Your task to perform on an android device: Open notification settings Image 0: 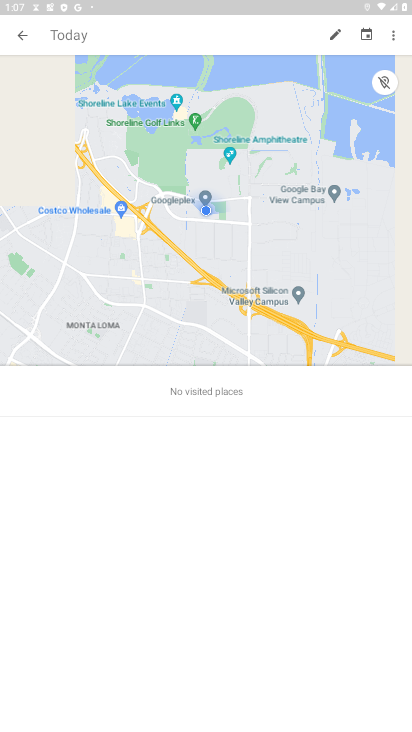
Step 0: press home button
Your task to perform on an android device: Open notification settings Image 1: 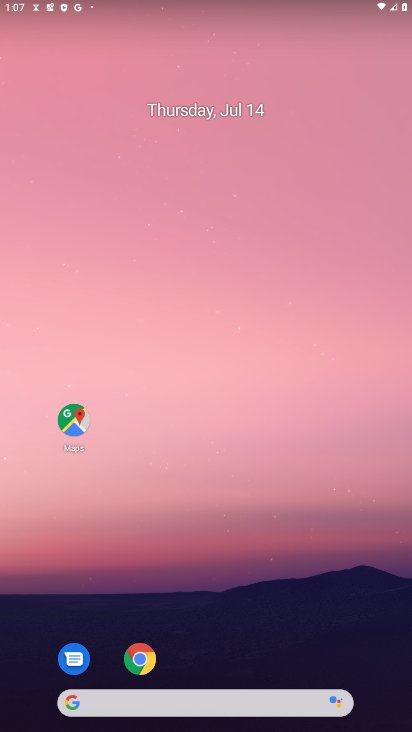
Step 1: drag from (203, 361) to (250, 281)
Your task to perform on an android device: Open notification settings Image 2: 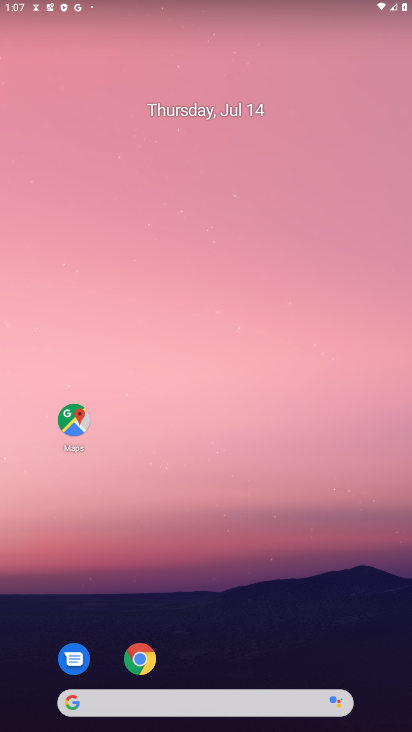
Step 2: drag from (35, 675) to (248, 146)
Your task to perform on an android device: Open notification settings Image 3: 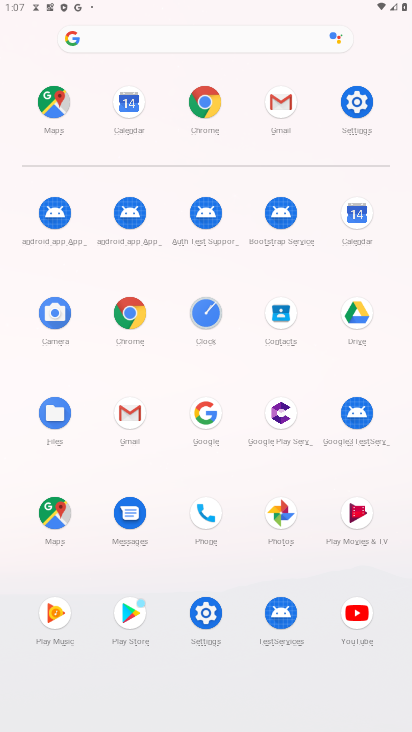
Step 3: click (200, 620)
Your task to perform on an android device: Open notification settings Image 4: 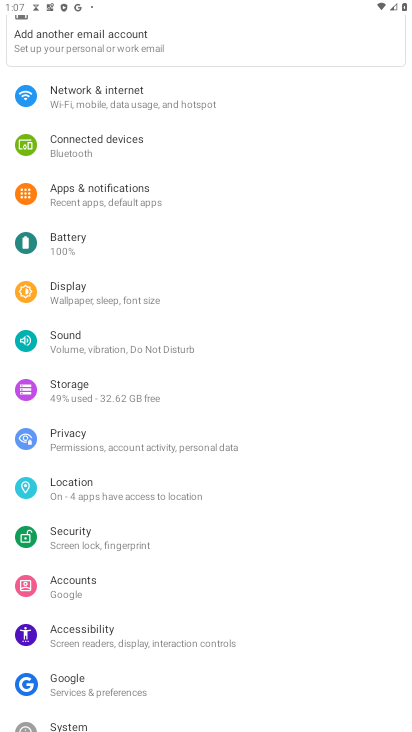
Step 4: click (94, 195)
Your task to perform on an android device: Open notification settings Image 5: 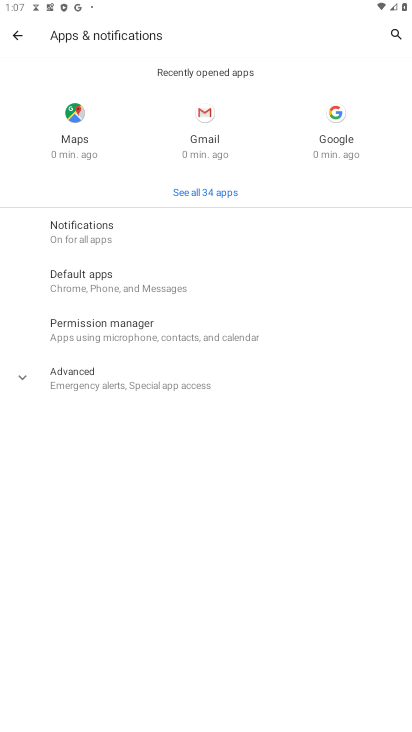
Step 5: click (77, 240)
Your task to perform on an android device: Open notification settings Image 6: 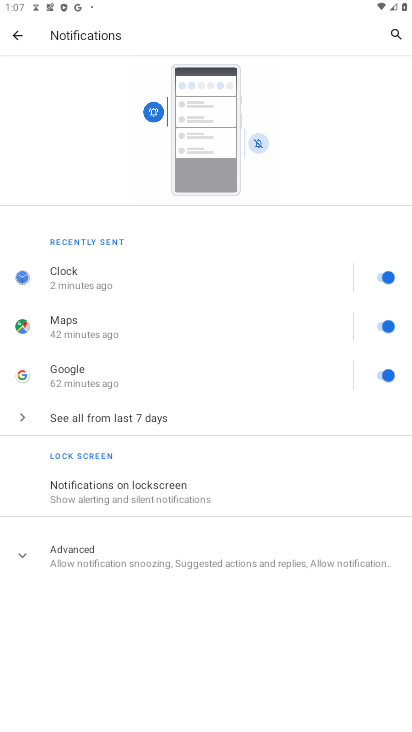
Step 6: task complete